Your task to perform on an android device: Turn on the flashlight Image 0: 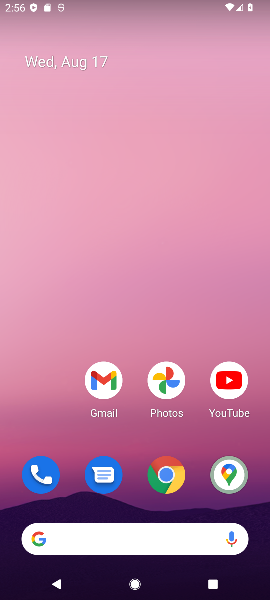
Step 0: drag from (109, 6) to (166, 413)
Your task to perform on an android device: Turn on the flashlight Image 1: 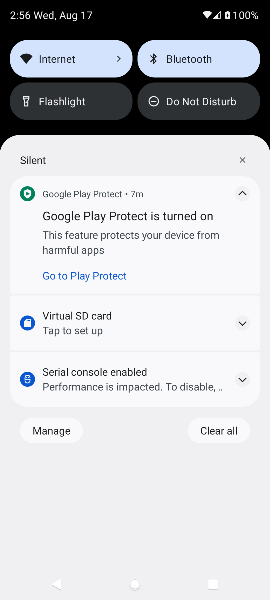
Step 1: click (62, 111)
Your task to perform on an android device: Turn on the flashlight Image 2: 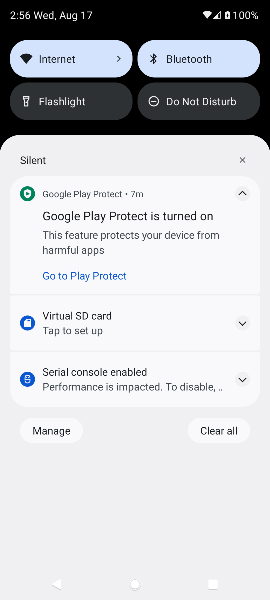
Step 2: task complete